Your task to perform on an android device: open a bookmark in the chrome app Image 0: 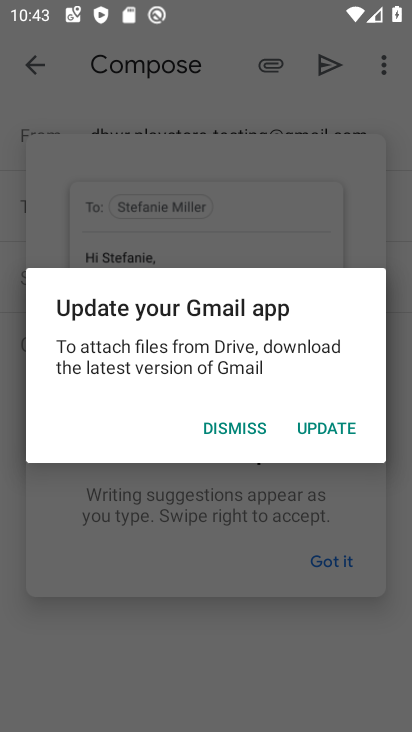
Step 0: press home button
Your task to perform on an android device: open a bookmark in the chrome app Image 1: 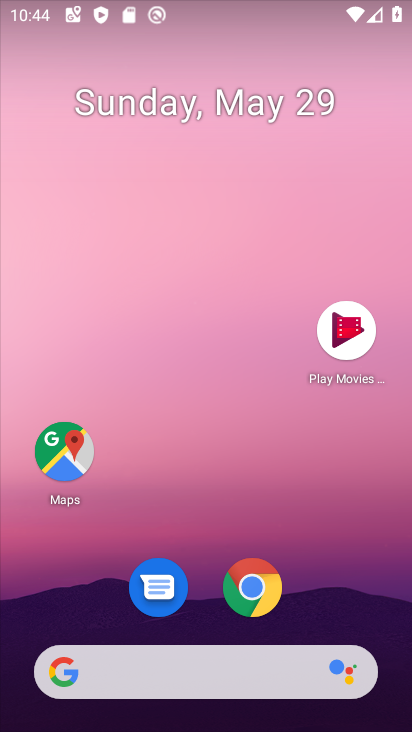
Step 1: click (281, 596)
Your task to perform on an android device: open a bookmark in the chrome app Image 2: 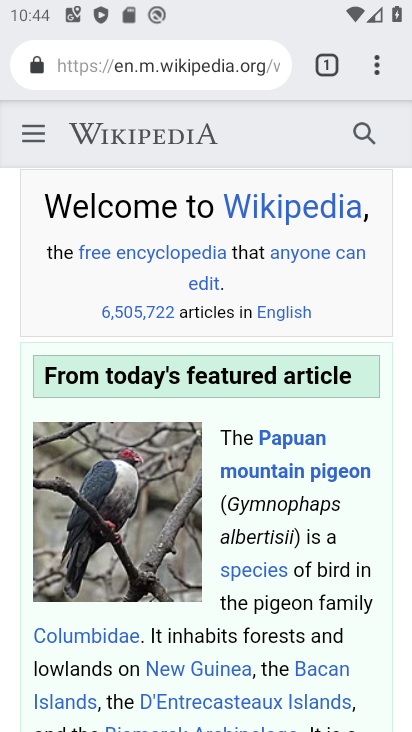
Step 2: click (383, 68)
Your task to perform on an android device: open a bookmark in the chrome app Image 3: 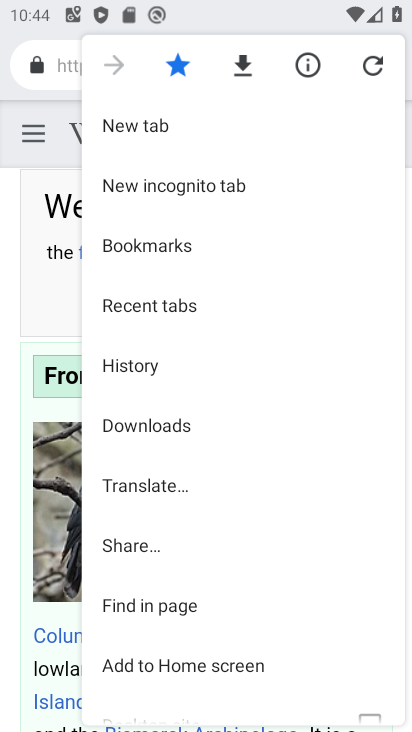
Step 3: click (299, 249)
Your task to perform on an android device: open a bookmark in the chrome app Image 4: 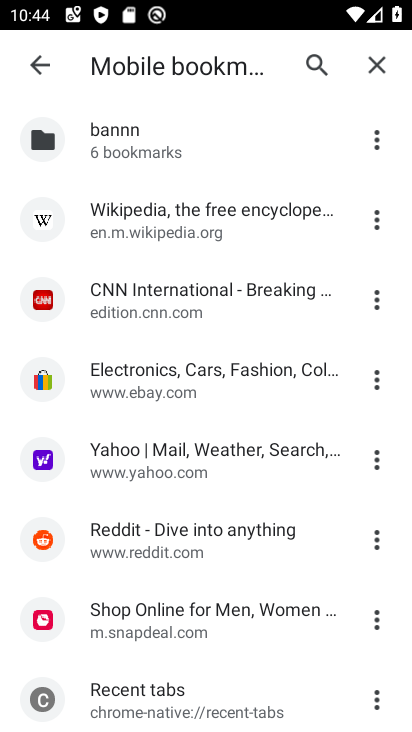
Step 4: click (223, 245)
Your task to perform on an android device: open a bookmark in the chrome app Image 5: 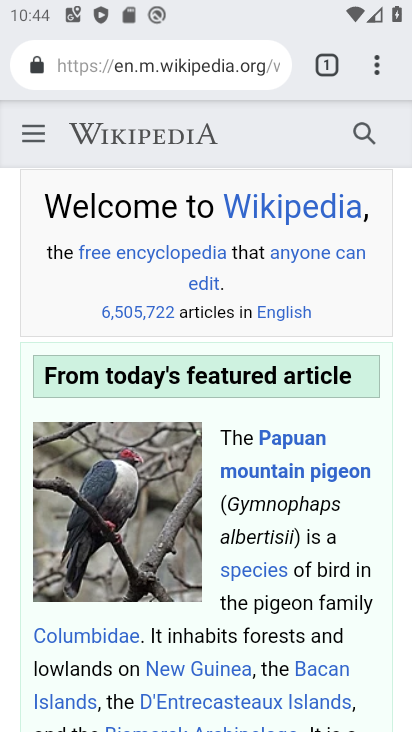
Step 5: task complete